Your task to perform on an android device: add a label to a message in the gmail app Image 0: 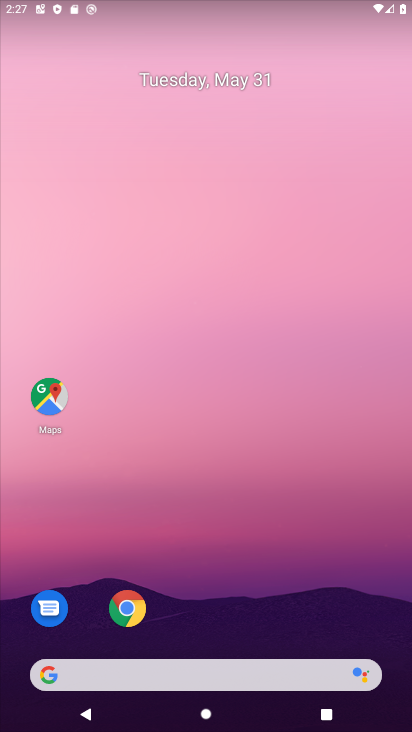
Step 0: drag from (182, 612) to (208, 474)
Your task to perform on an android device: add a label to a message in the gmail app Image 1: 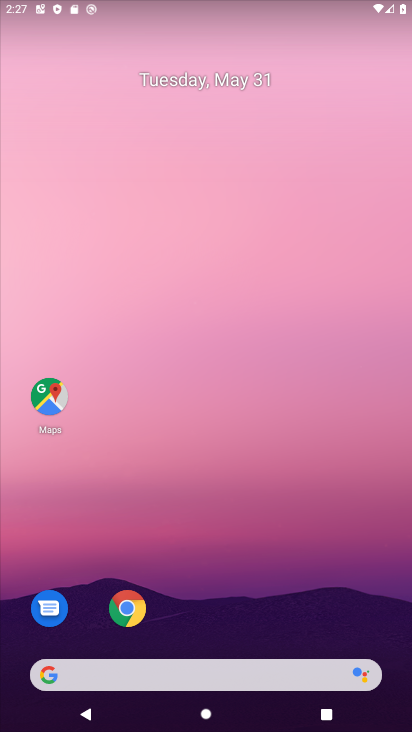
Step 1: drag from (208, 649) to (212, 558)
Your task to perform on an android device: add a label to a message in the gmail app Image 2: 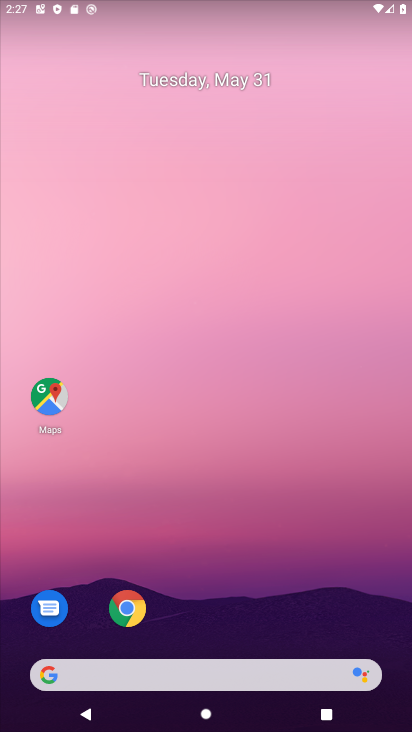
Step 2: drag from (196, 634) to (201, 263)
Your task to perform on an android device: add a label to a message in the gmail app Image 3: 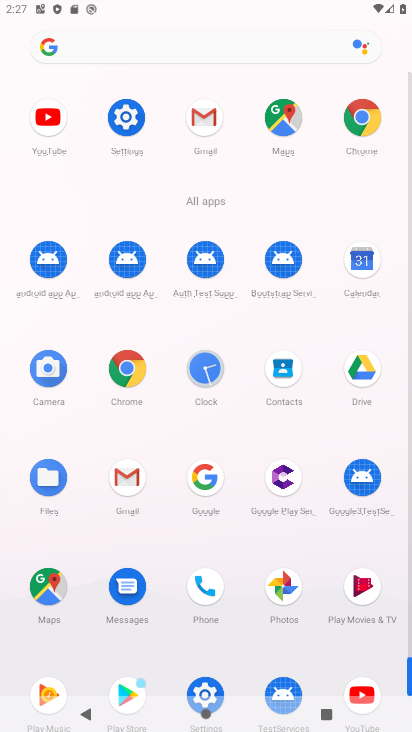
Step 3: click (126, 497)
Your task to perform on an android device: add a label to a message in the gmail app Image 4: 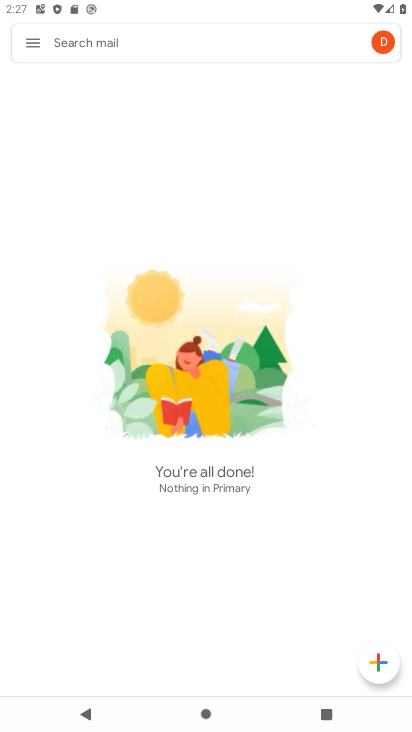
Step 4: click (38, 45)
Your task to perform on an android device: add a label to a message in the gmail app Image 5: 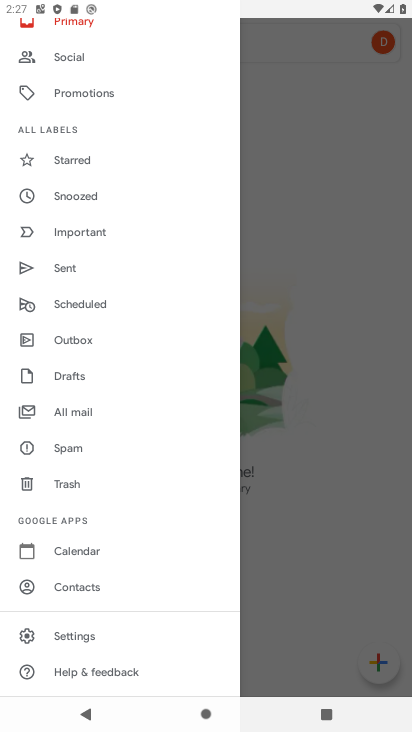
Step 5: click (87, 411)
Your task to perform on an android device: add a label to a message in the gmail app Image 6: 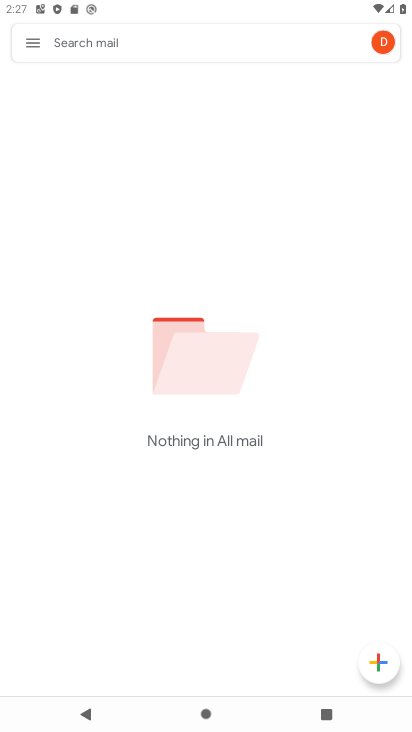
Step 6: task complete